Your task to perform on an android device: turn off translation in the chrome app Image 0: 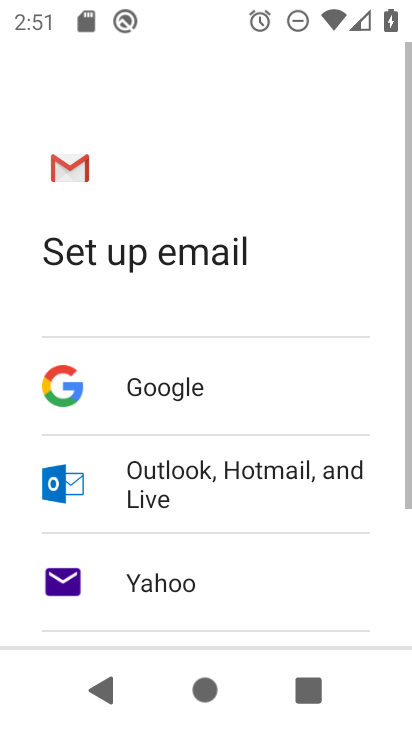
Step 0: press home button
Your task to perform on an android device: turn off translation in the chrome app Image 1: 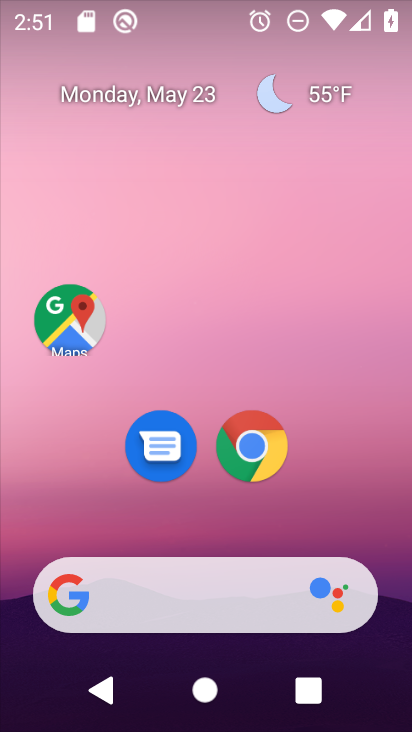
Step 1: click (259, 450)
Your task to perform on an android device: turn off translation in the chrome app Image 2: 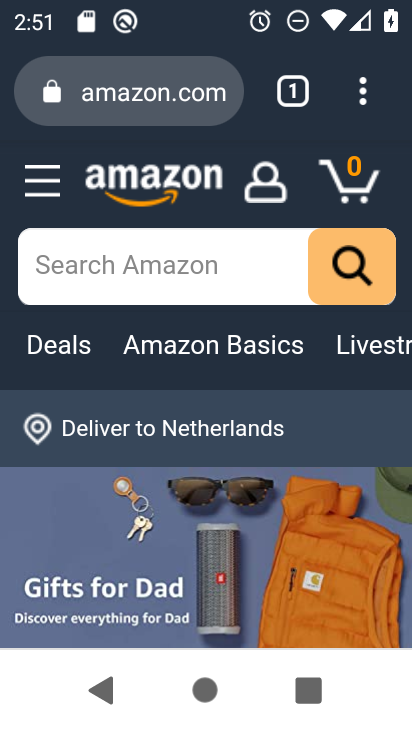
Step 2: click (369, 88)
Your task to perform on an android device: turn off translation in the chrome app Image 3: 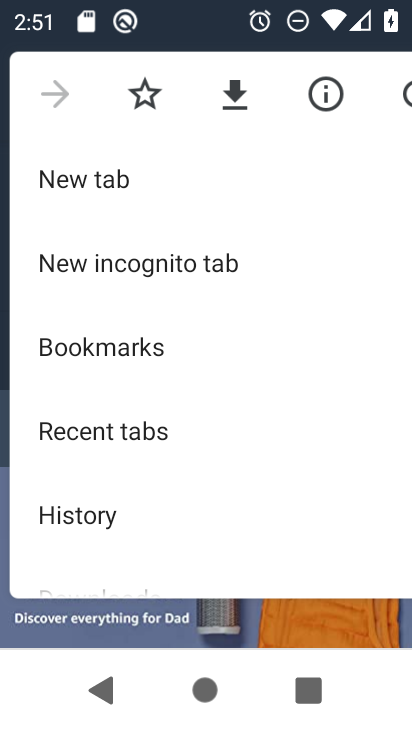
Step 3: drag from (187, 496) to (226, 227)
Your task to perform on an android device: turn off translation in the chrome app Image 4: 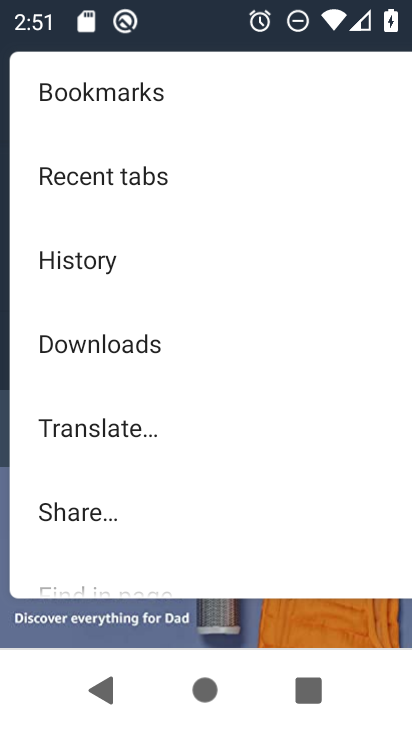
Step 4: drag from (133, 506) to (206, 234)
Your task to perform on an android device: turn off translation in the chrome app Image 5: 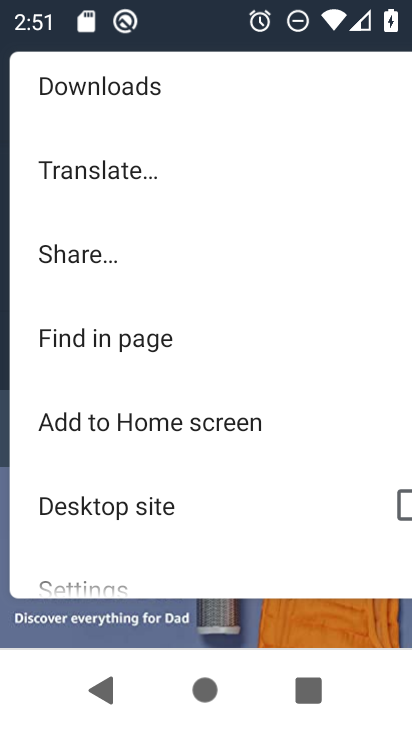
Step 5: drag from (174, 484) to (182, 231)
Your task to perform on an android device: turn off translation in the chrome app Image 6: 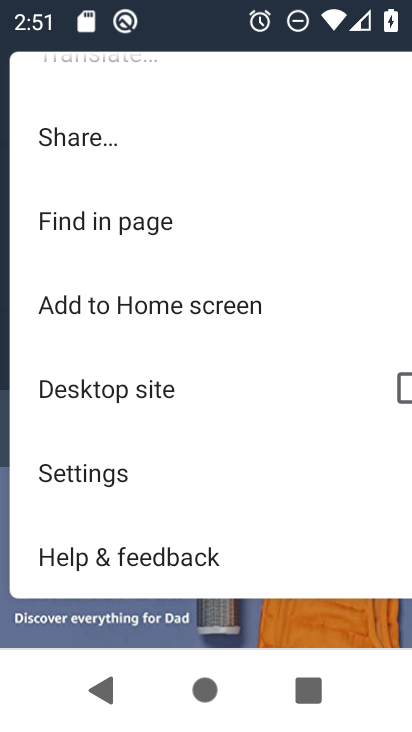
Step 6: click (104, 467)
Your task to perform on an android device: turn off translation in the chrome app Image 7: 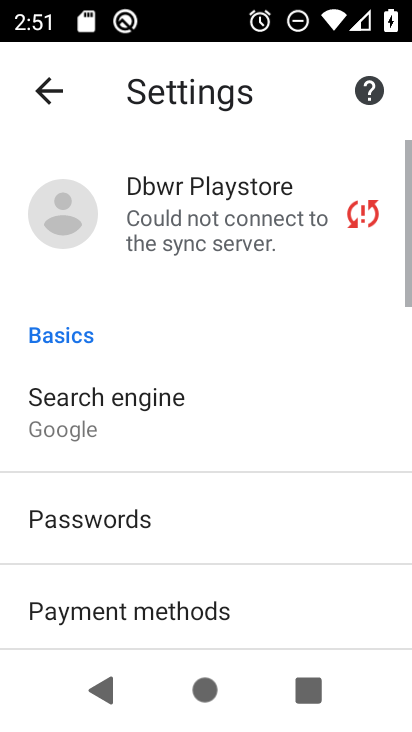
Step 7: drag from (192, 576) to (240, 275)
Your task to perform on an android device: turn off translation in the chrome app Image 8: 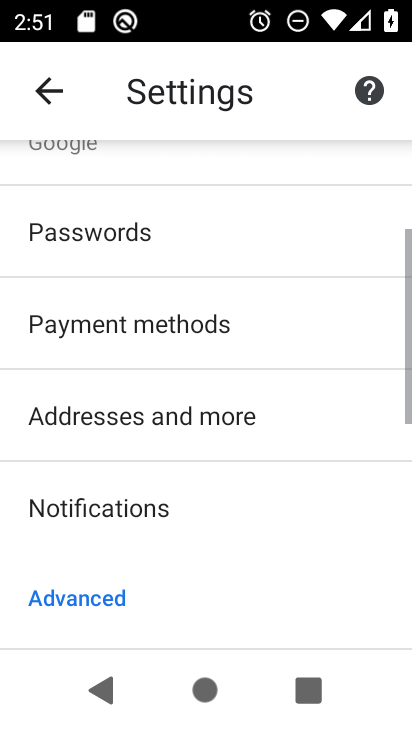
Step 8: drag from (220, 524) to (203, 281)
Your task to perform on an android device: turn off translation in the chrome app Image 9: 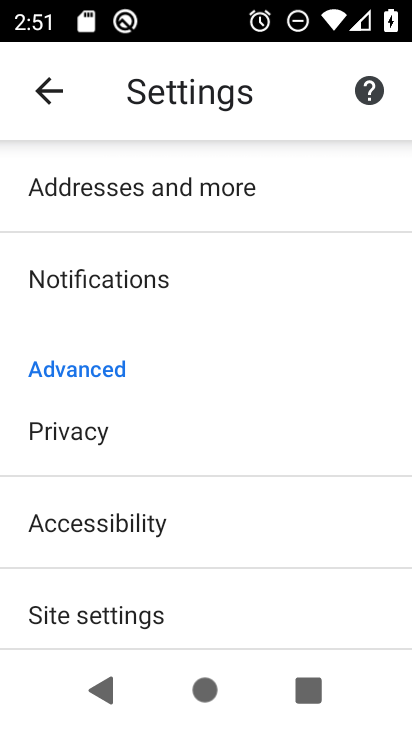
Step 9: drag from (174, 602) to (191, 360)
Your task to perform on an android device: turn off translation in the chrome app Image 10: 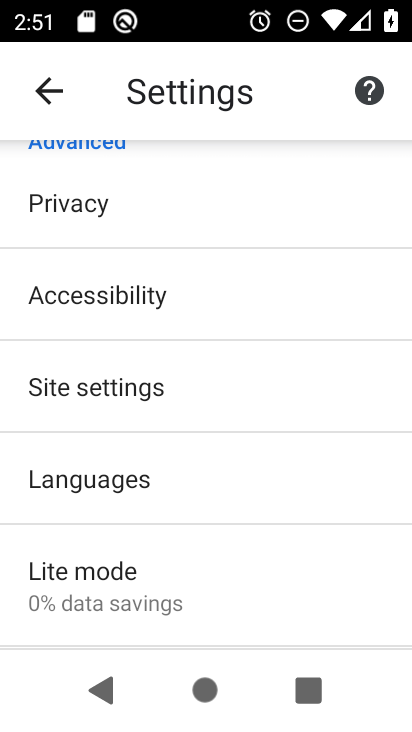
Step 10: click (163, 470)
Your task to perform on an android device: turn off translation in the chrome app Image 11: 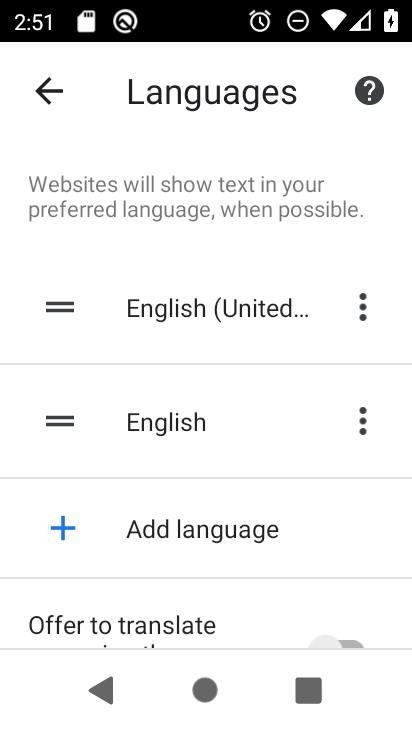
Step 11: task complete